Your task to perform on an android device: Go to Reddit.com Image 0: 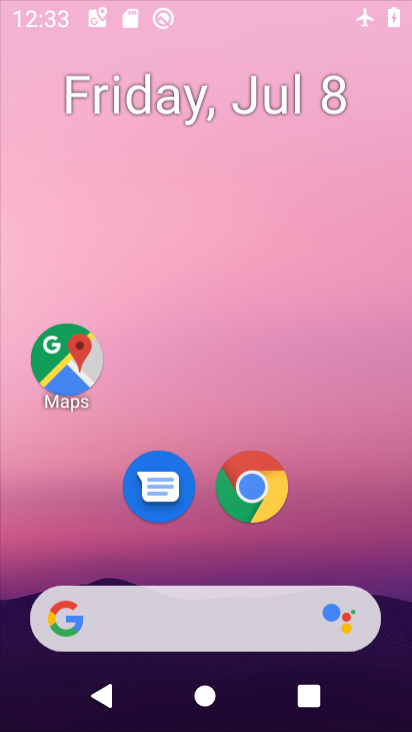
Step 0: drag from (366, 322) to (383, 85)
Your task to perform on an android device: Go to Reddit.com Image 1: 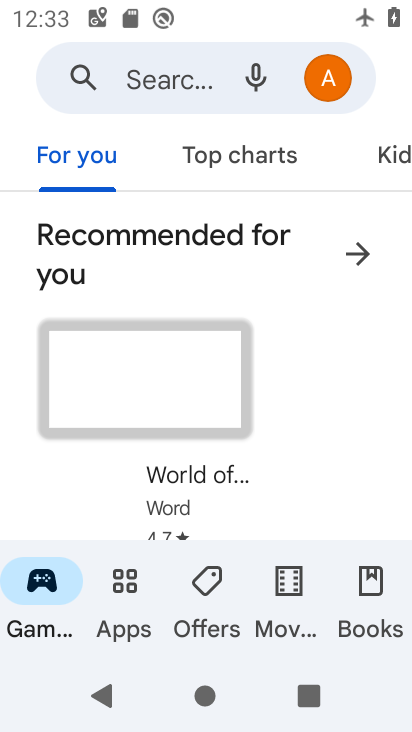
Step 1: press home button
Your task to perform on an android device: Go to Reddit.com Image 2: 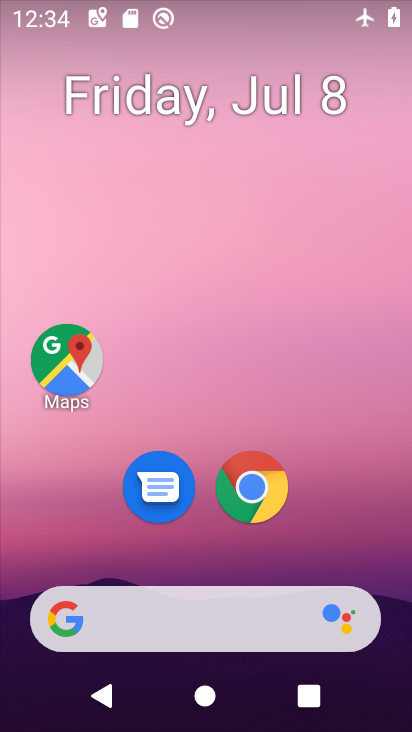
Step 2: drag from (374, 519) to (360, 164)
Your task to perform on an android device: Go to Reddit.com Image 3: 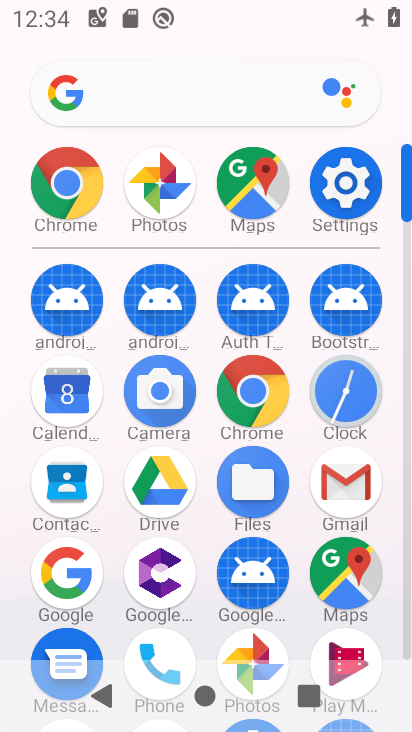
Step 3: click (264, 399)
Your task to perform on an android device: Go to Reddit.com Image 4: 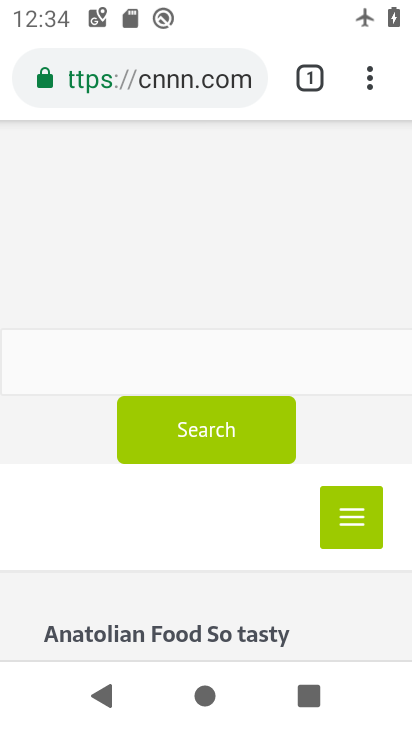
Step 4: click (200, 89)
Your task to perform on an android device: Go to Reddit.com Image 5: 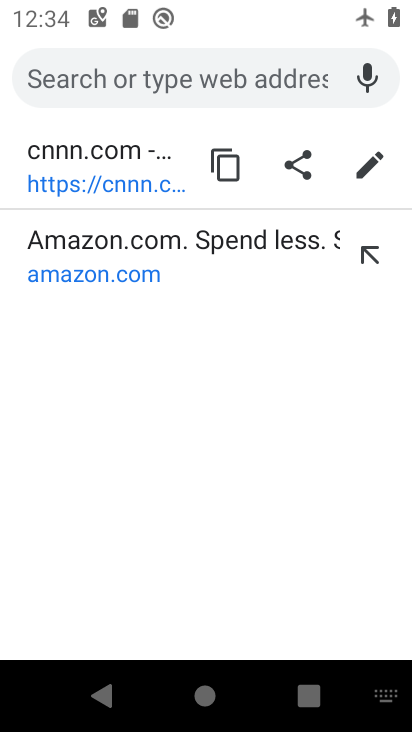
Step 5: type "reddit.com"
Your task to perform on an android device: Go to Reddit.com Image 6: 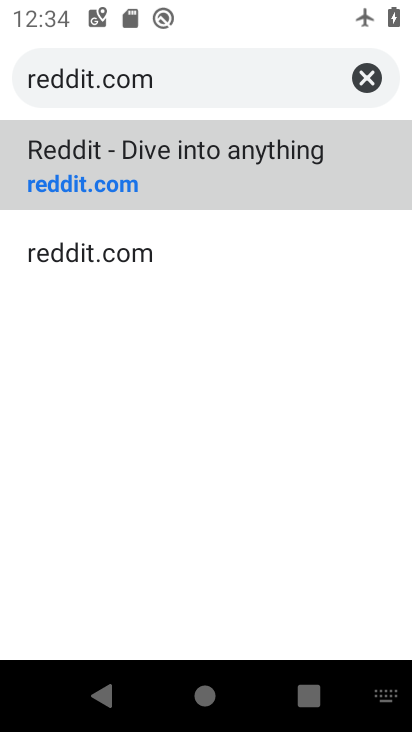
Step 6: click (233, 181)
Your task to perform on an android device: Go to Reddit.com Image 7: 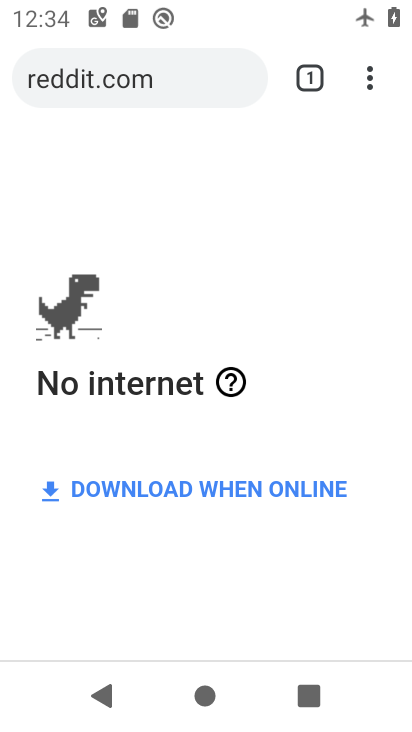
Step 7: task complete